Your task to perform on an android device: Go to Google Image 0: 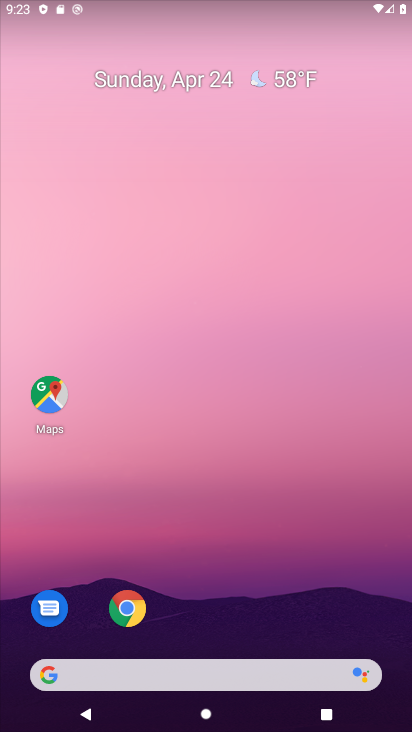
Step 0: drag from (254, 339) to (270, 84)
Your task to perform on an android device: Go to Google Image 1: 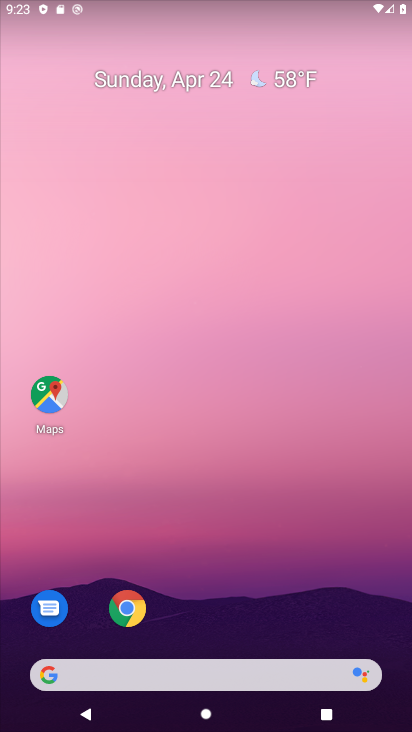
Step 1: drag from (361, 271) to (345, 7)
Your task to perform on an android device: Go to Google Image 2: 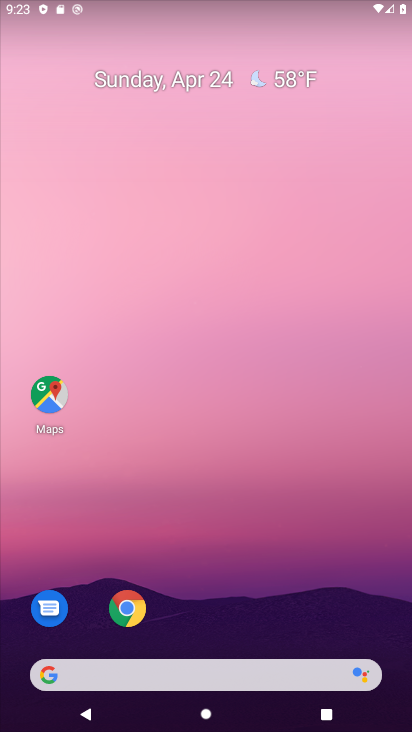
Step 2: drag from (290, 453) to (327, 31)
Your task to perform on an android device: Go to Google Image 3: 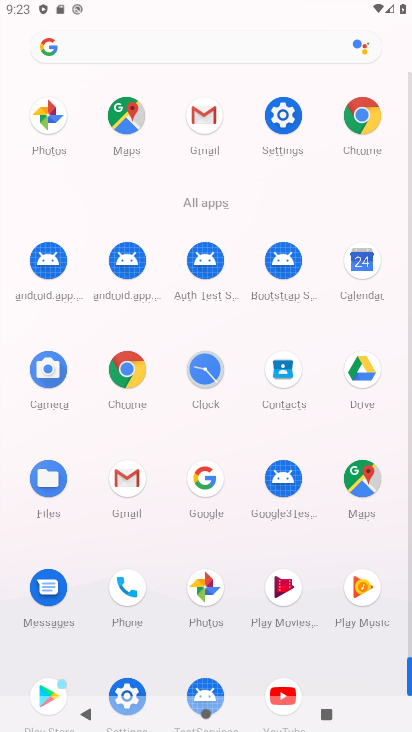
Step 3: click (193, 483)
Your task to perform on an android device: Go to Google Image 4: 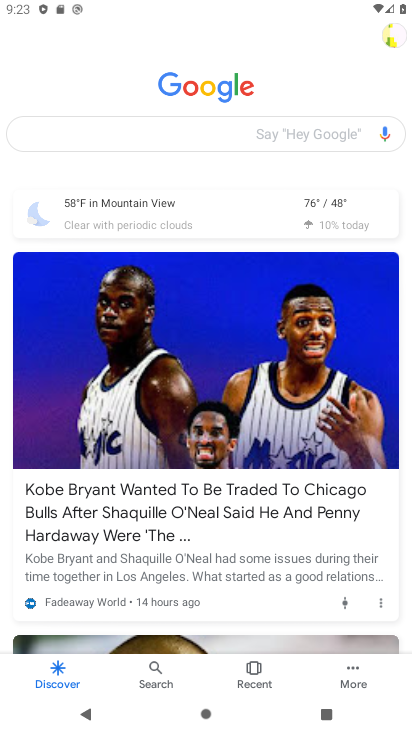
Step 4: task complete